Your task to perform on an android device: Is it going to rain tomorrow? Image 0: 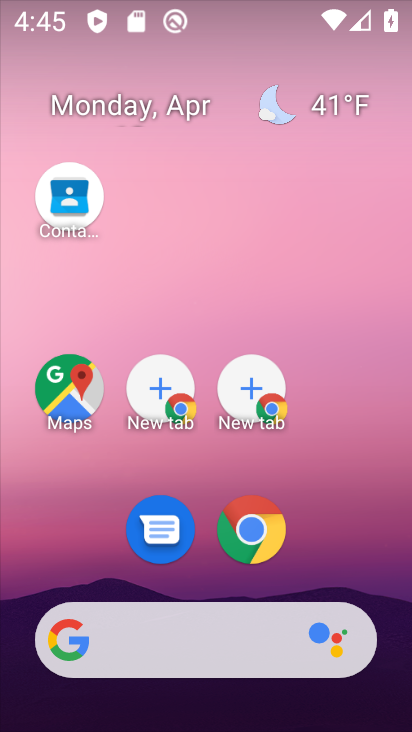
Step 0: click (298, 94)
Your task to perform on an android device: Is it going to rain tomorrow? Image 1: 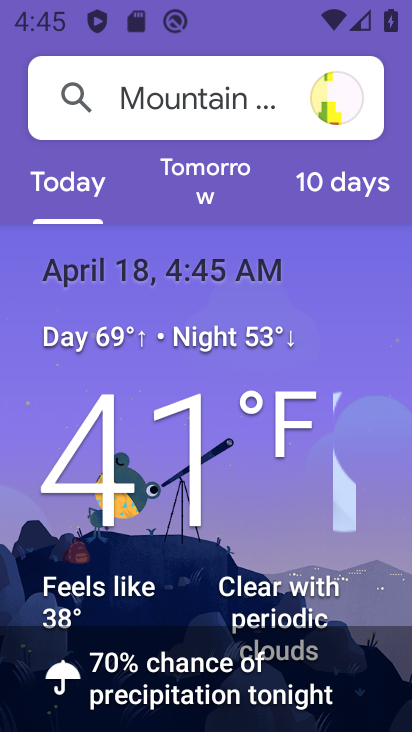
Step 1: click (211, 181)
Your task to perform on an android device: Is it going to rain tomorrow? Image 2: 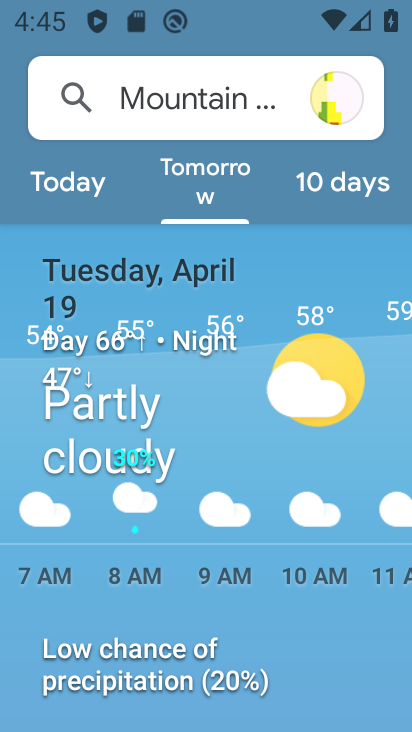
Step 2: task complete